Your task to perform on an android device: Do I have any events today? Image 0: 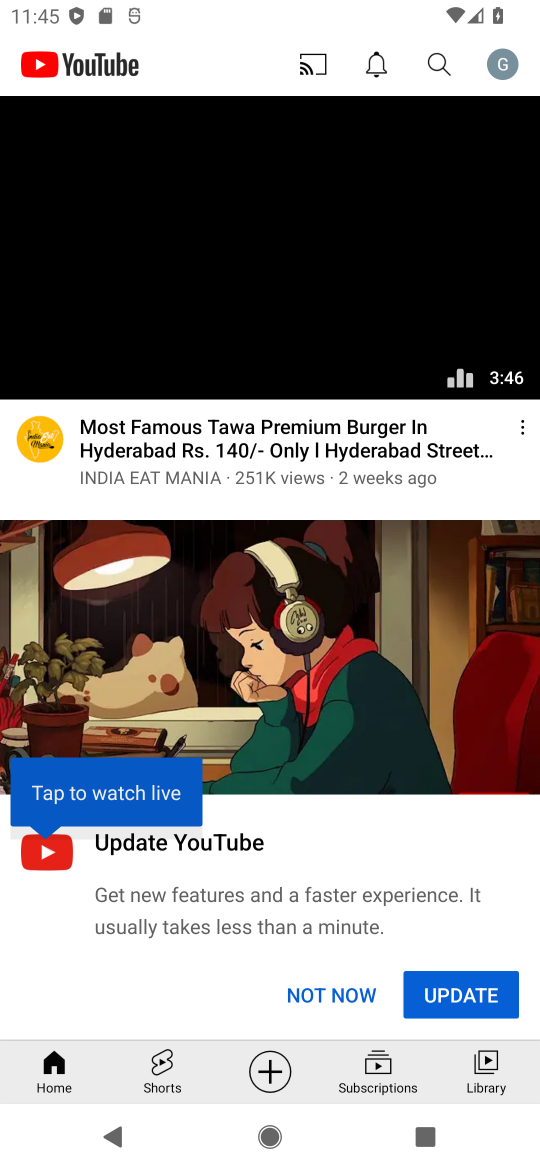
Step 0: press home button
Your task to perform on an android device: Do I have any events today? Image 1: 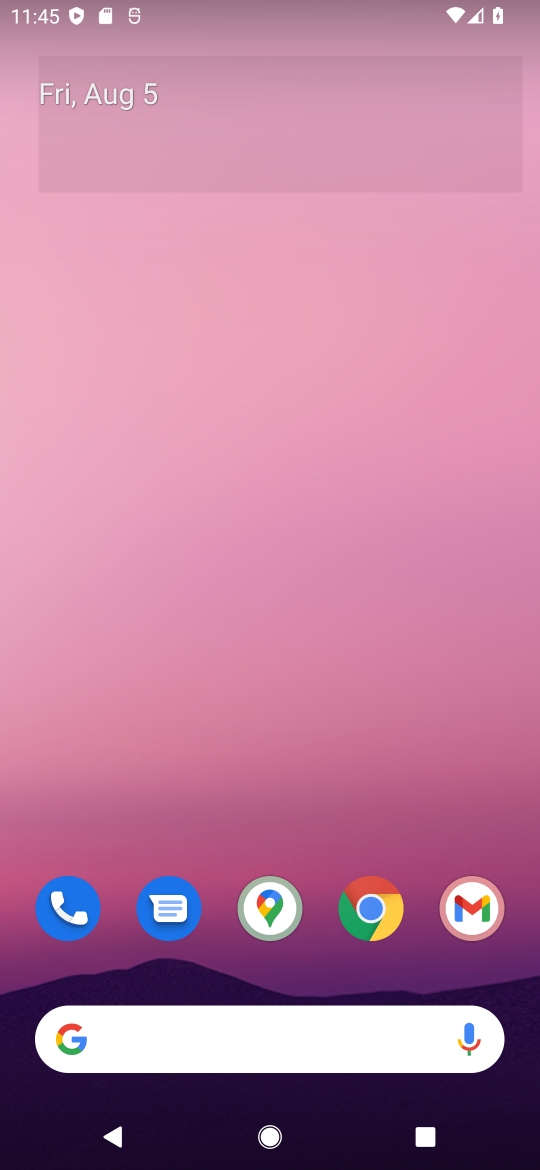
Step 1: drag from (404, 798) to (493, 195)
Your task to perform on an android device: Do I have any events today? Image 2: 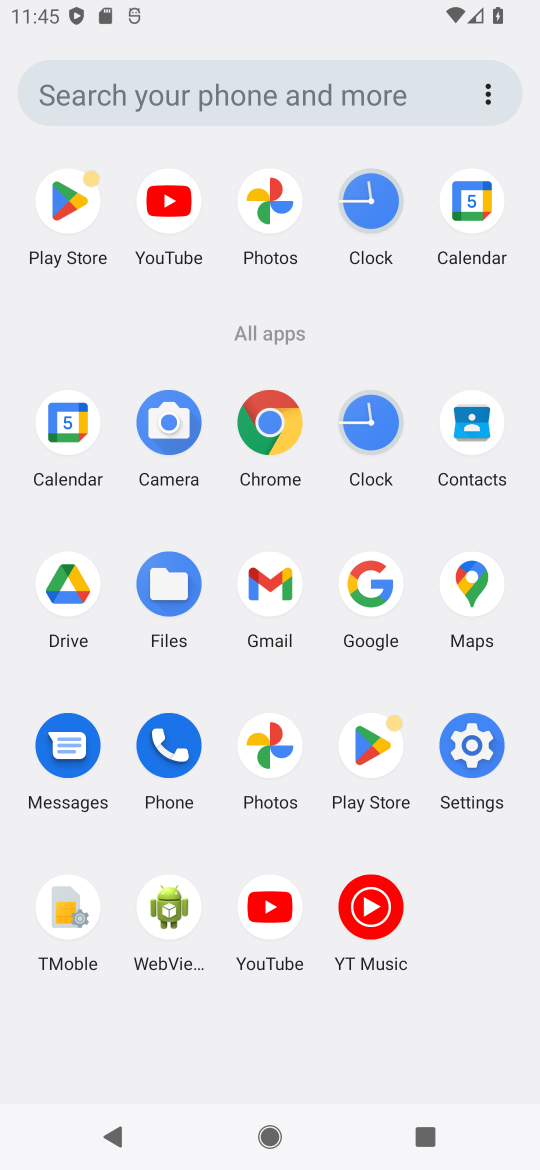
Step 2: click (101, 427)
Your task to perform on an android device: Do I have any events today? Image 3: 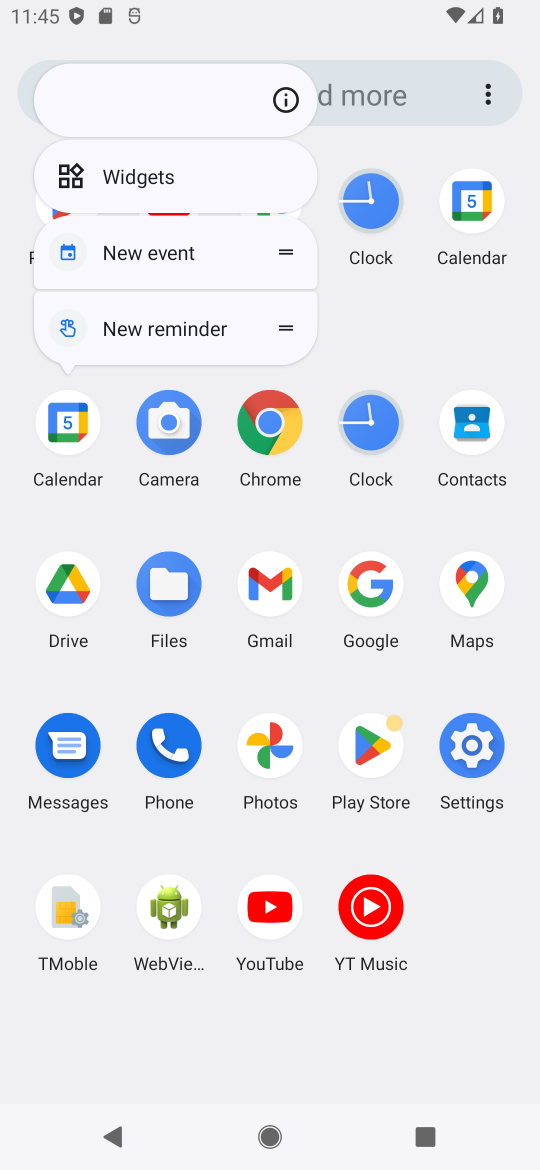
Step 3: click (141, 461)
Your task to perform on an android device: Do I have any events today? Image 4: 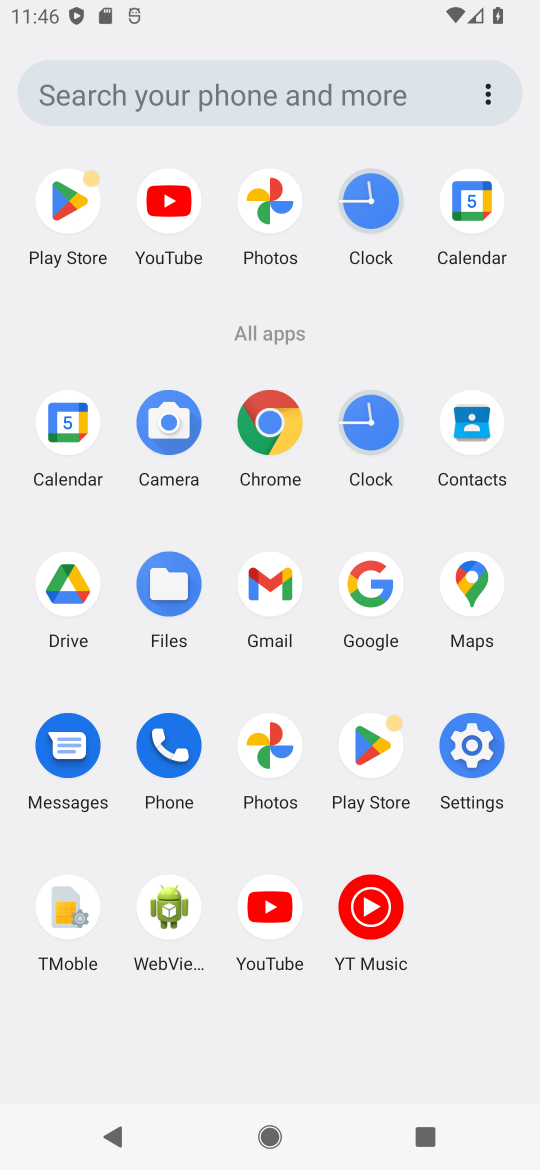
Step 4: click (60, 416)
Your task to perform on an android device: Do I have any events today? Image 5: 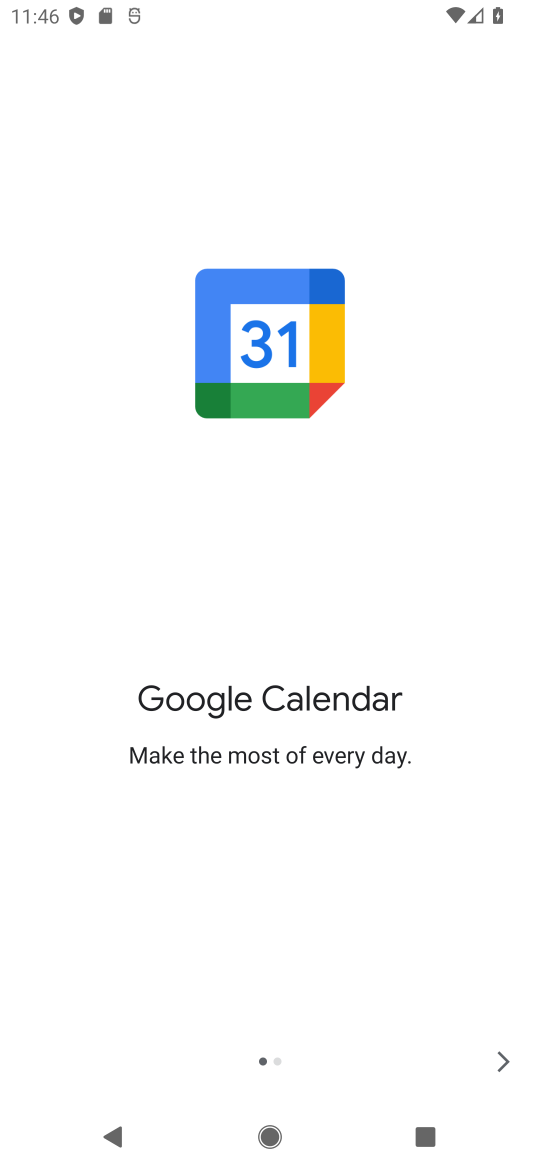
Step 5: click (507, 1071)
Your task to perform on an android device: Do I have any events today? Image 6: 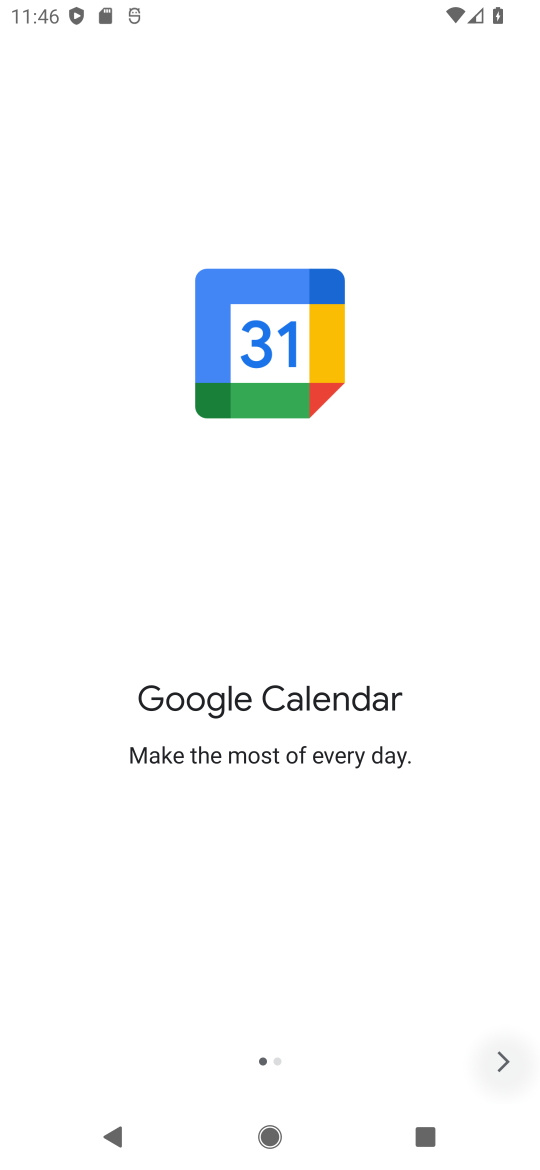
Step 6: click (504, 1069)
Your task to perform on an android device: Do I have any events today? Image 7: 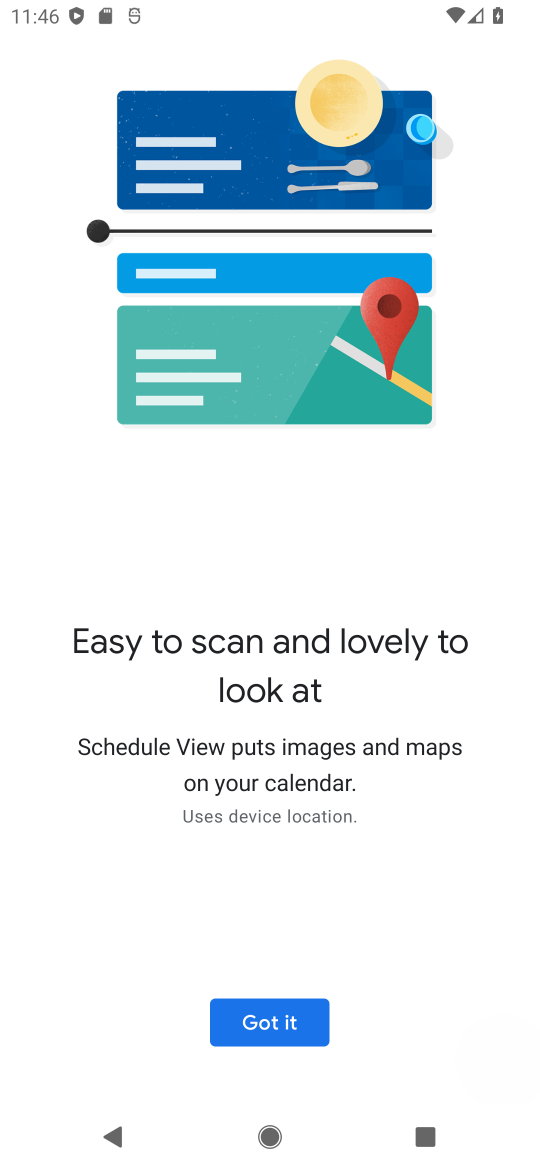
Step 7: click (504, 1068)
Your task to perform on an android device: Do I have any events today? Image 8: 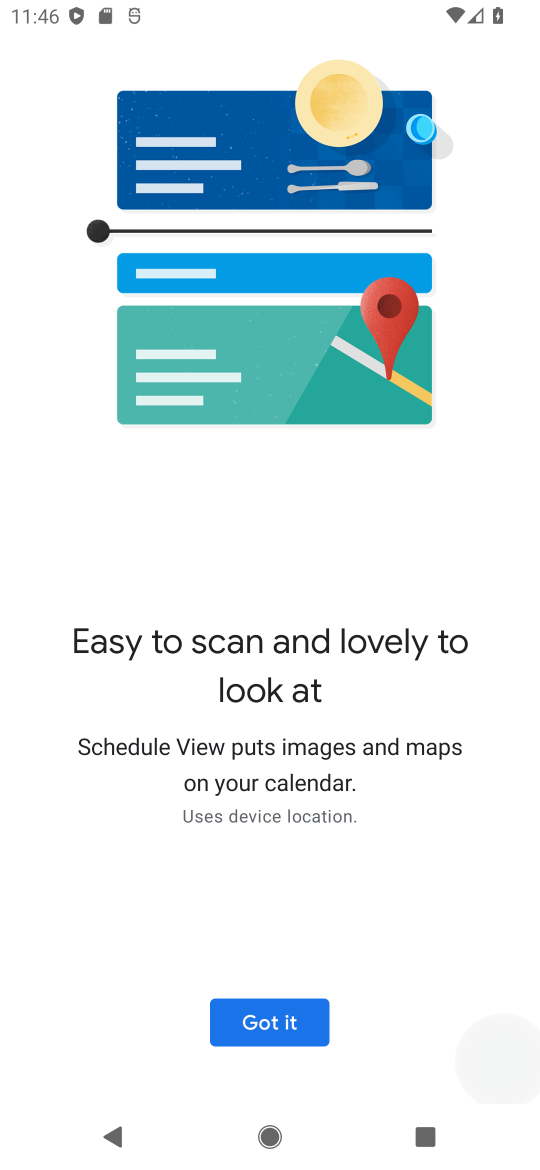
Step 8: click (204, 1021)
Your task to perform on an android device: Do I have any events today? Image 9: 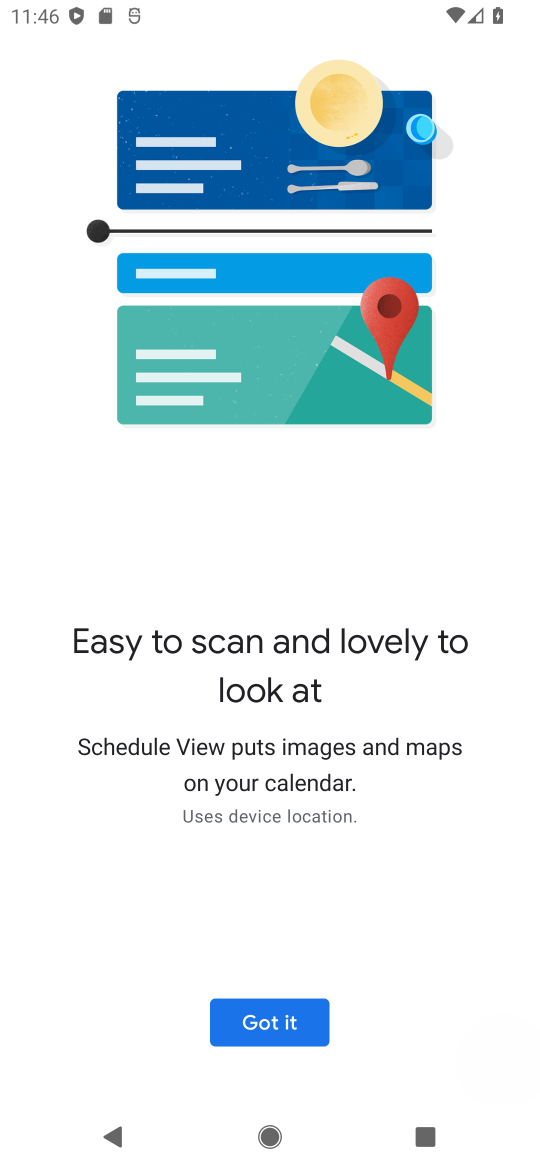
Step 9: click (258, 1046)
Your task to perform on an android device: Do I have any events today? Image 10: 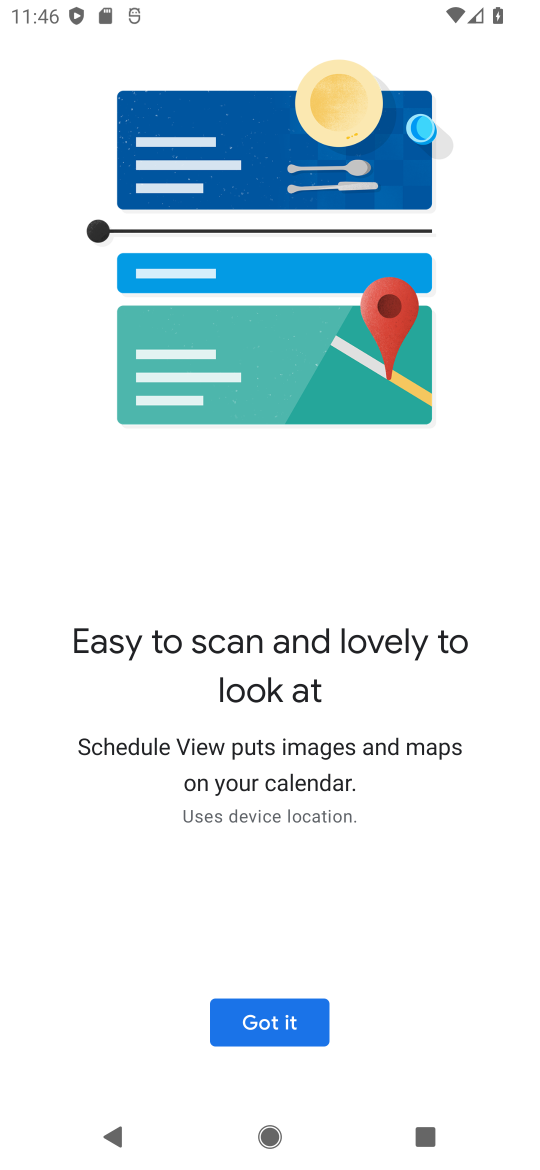
Step 10: click (256, 1035)
Your task to perform on an android device: Do I have any events today? Image 11: 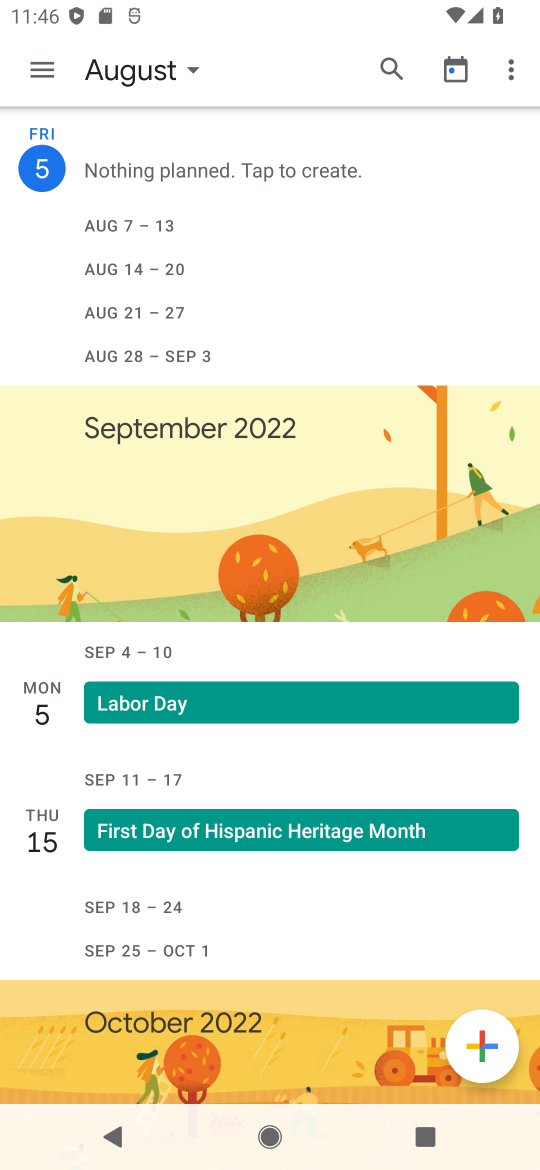
Step 11: task complete